Your task to perform on an android device: open the mobile data screen to see how much data has been used Image 0: 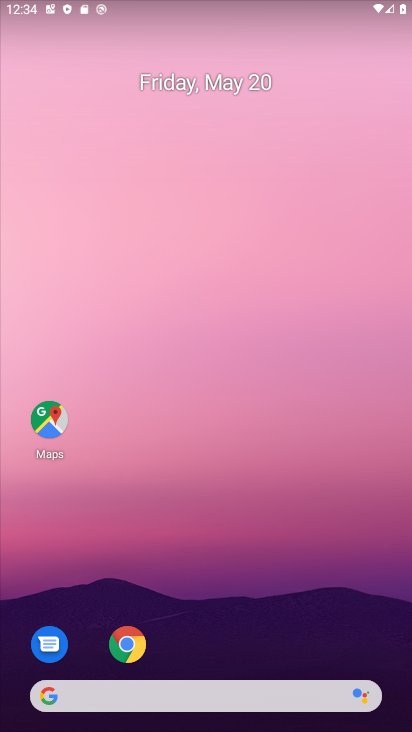
Step 0: drag from (328, 657) to (322, 45)
Your task to perform on an android device: open the mobile data screen to see how much data has been used Image 1: 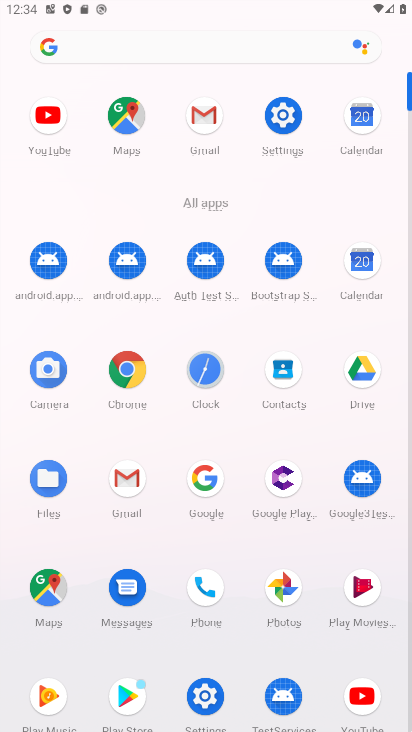
Step 1: click (281, 123)
Your task to perform on an android device: open the mobile data screen to see how much data has been used Image 2: 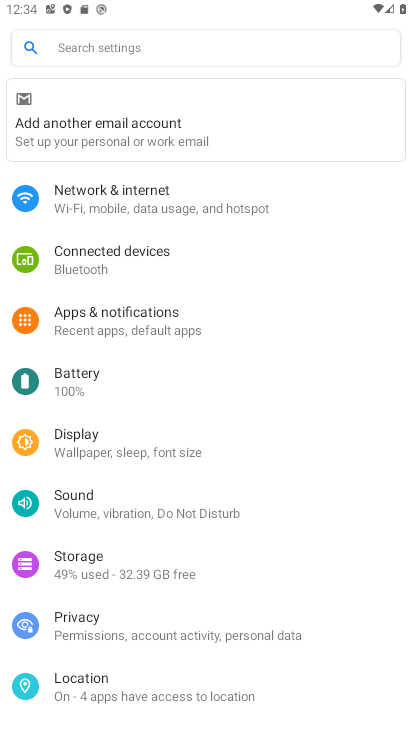
Step 2: click (111, 204)
Your task to perform on an android device: open the mobile data screen to see how much data has been used Image 3: 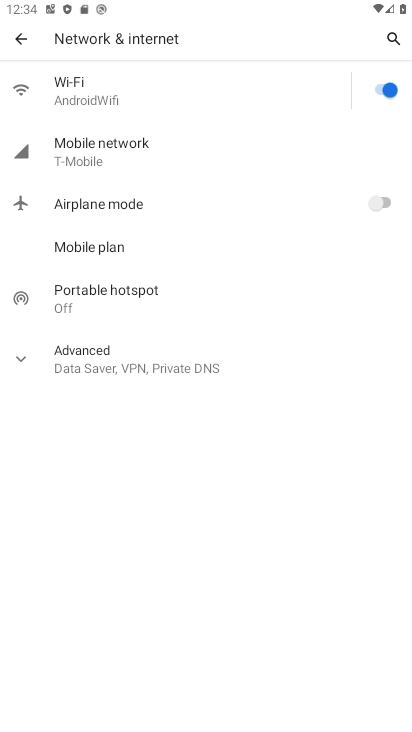
Step 3: click (74, 144)
Your task to perform on an android device: open the mobile data screen to see how much data has been used Image 4: 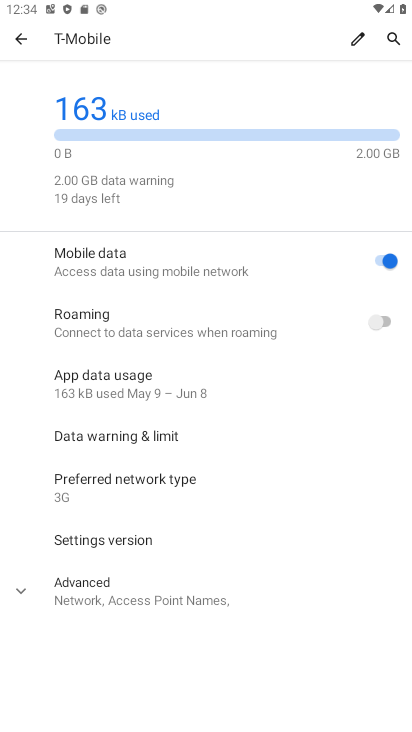
Step 4: click (104, 395)
Your task to perform on an android device: open the mobile data screen to see how much data has been used Image 5: 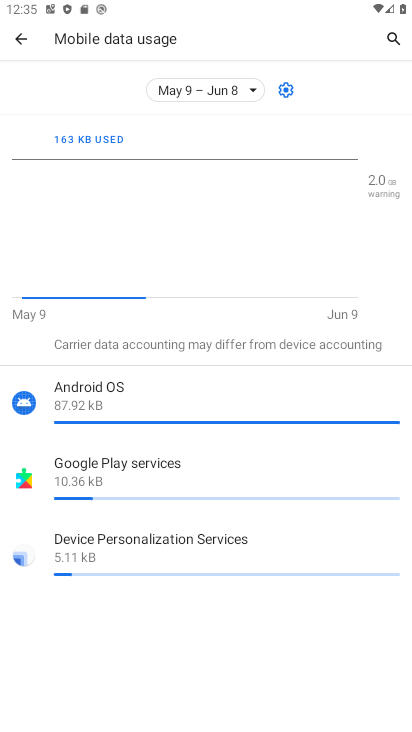
Step 5: task complete